Your task to perform on an android device: turn on javascript in the chrome app Image 0: 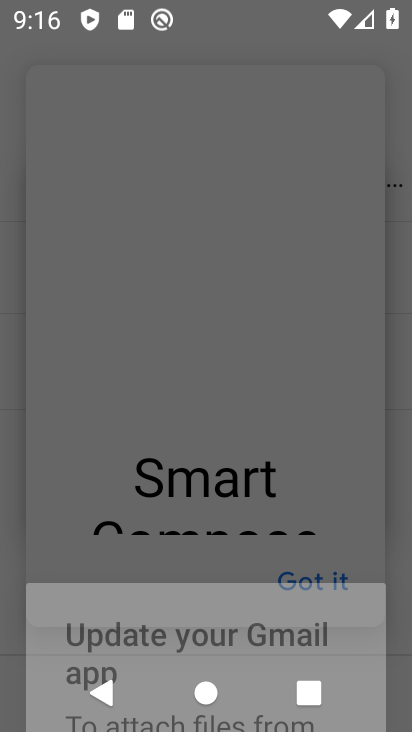
Step 0: press back button
Your task to perform on an android device: turn on javascript in the chrome app Image 1: 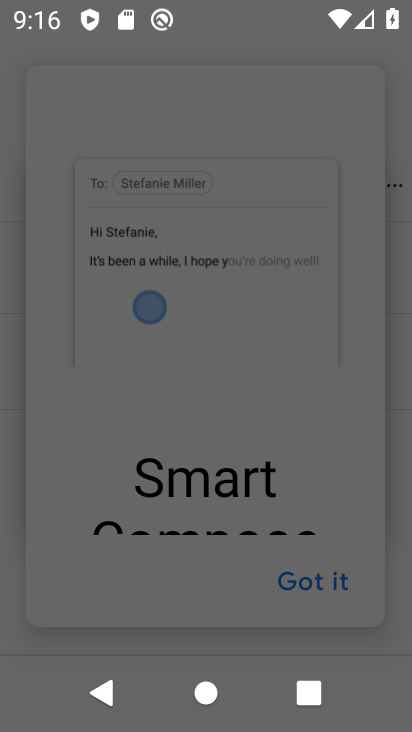
Step 1: press home button
Your task to perform on an android device: turn on javascript in the chrome app Image 2: 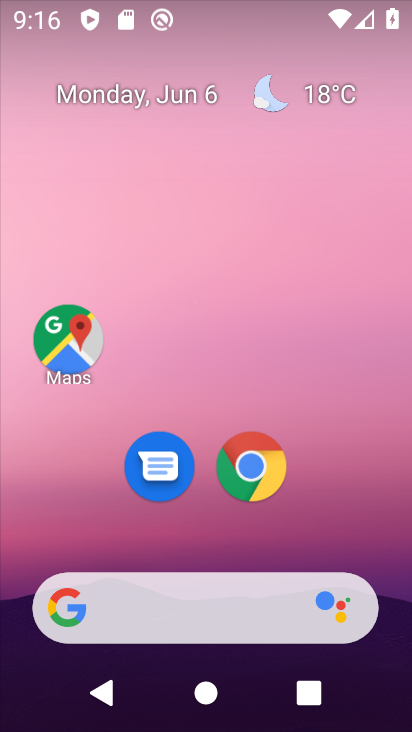
Step 2: click (256, 480)
Your task to perform on an android device: turn on javascript in the chrome app Image 3: 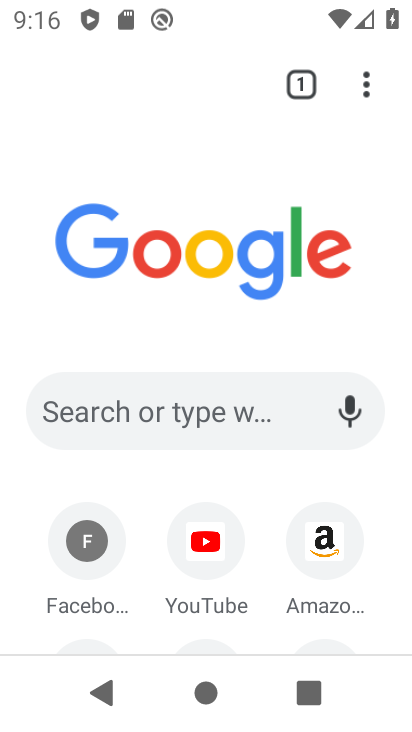
Step 3: drag from (168, 549) to (162, 420)
Your task to perform on an android device: turn on javascript in the chrome app Image 4: 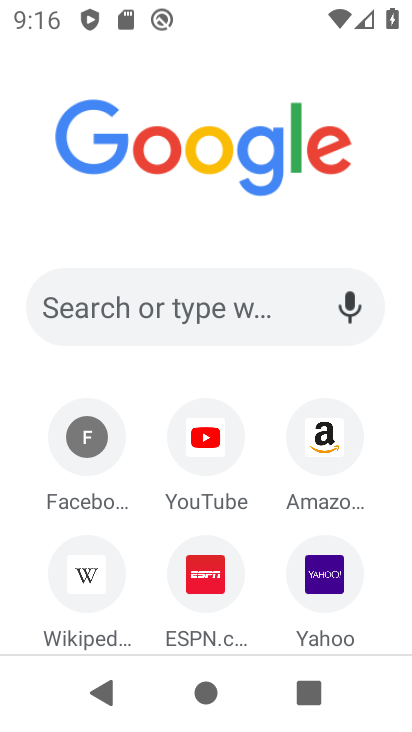
Step 4: drag from (139, 602) to (170, 393)
Your task to perform on an android device: turn on javascript in the chrome app Image 5: 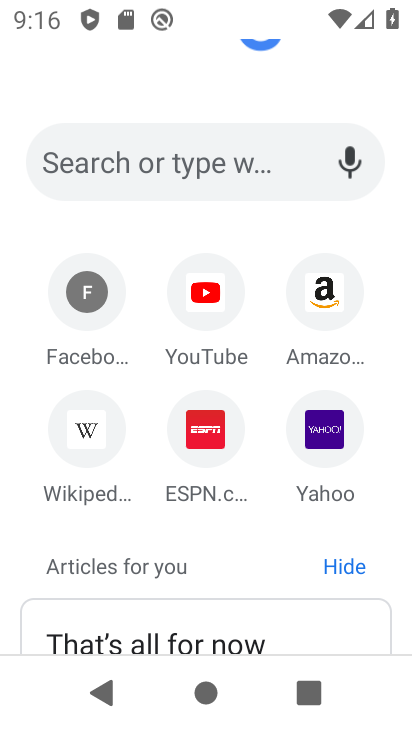
Step 5: drag from (330, 86) to (269, 485)
Your task to perform on an android device: turn on javascript in the chrome app Image 6: 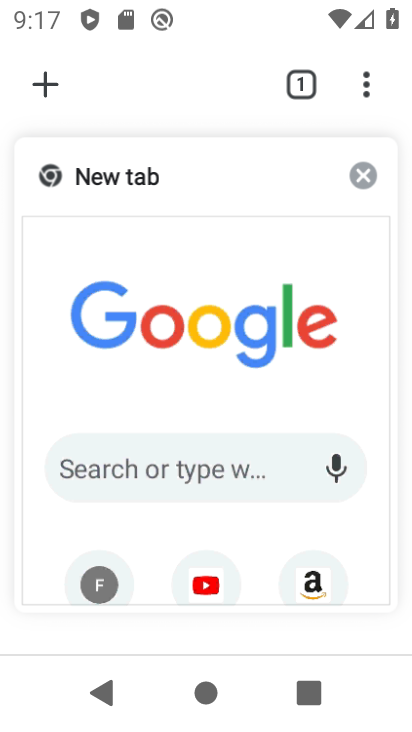
Step 6: click (207, 179)
Your task to perform on an android device: turn on javascript in the chrome app Image 7: 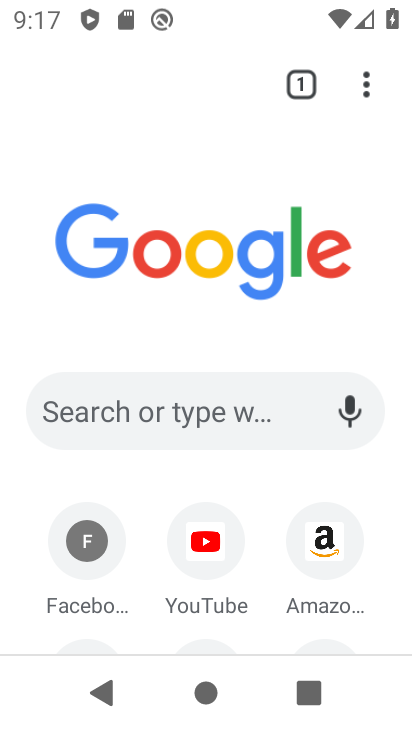
Step 7: click (368, 95)
Your task to perform on an android device: turn on javascript in the chrome app Image 8: 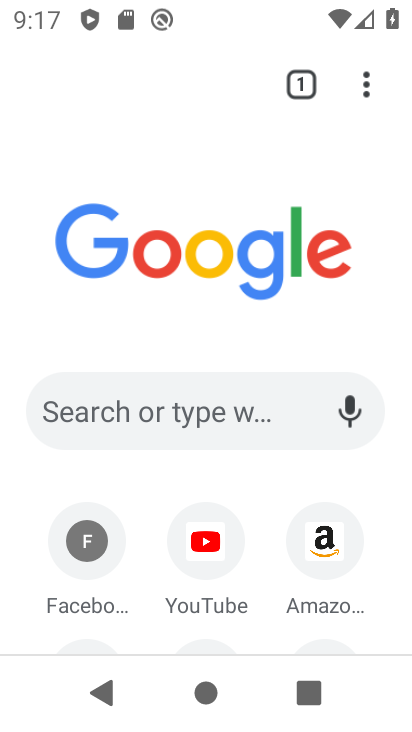
Step 8: click (368, 83)
Your task to perform on an android device: turn on javascript in the chrome app Image 9: 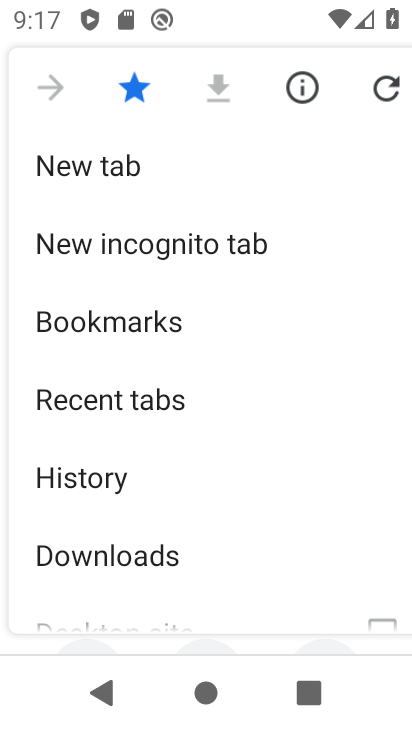
Step 9: drag from (177, 480) to (187, 283)
Your task to perform on an android device: turn on javascript in the chrome app Image 10: 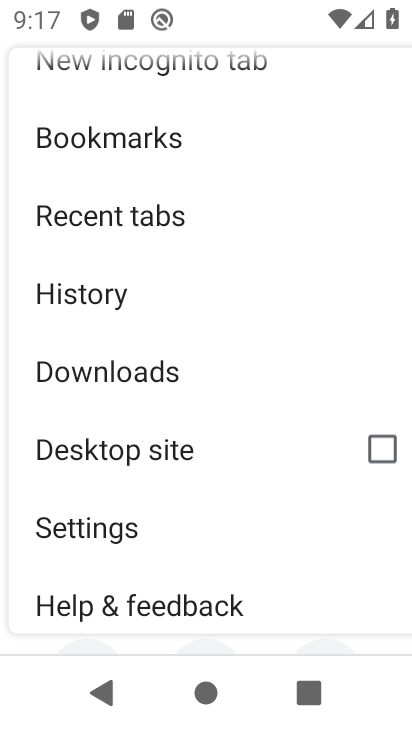
Step 10: click (108, 536)
Your task to perform on an android device: turn on javascript in the chrome app Image 11: 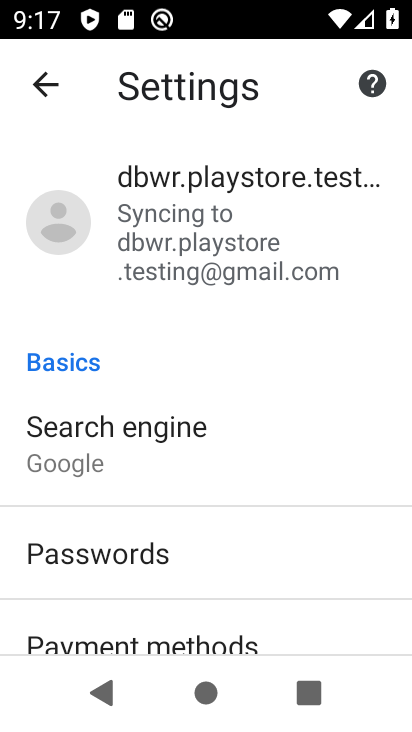
Step 11: drag from (123, 586) to (169, 347)
Your task to perform on an android device: turn on javascript in the chrome app Image 12: 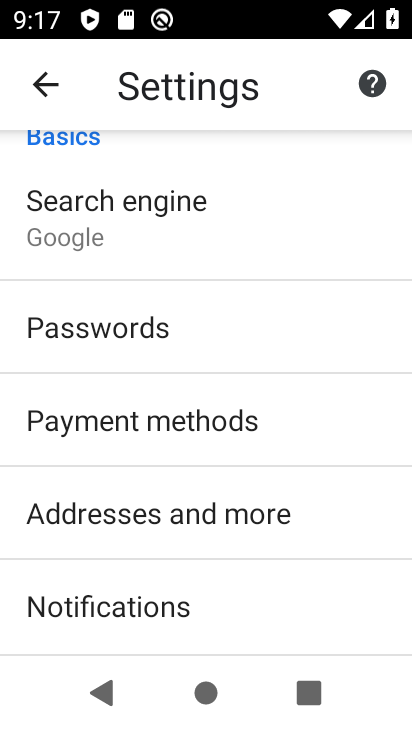
Step 12: drag from (159, 553) to (222, 278)
Your task to perform on an android device: turn on javascript in the chrome app Image 13: 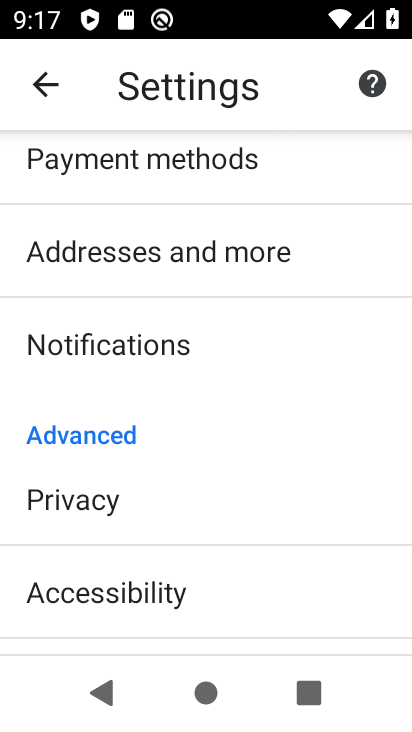
Step 13: drag from (137, 559) to (157, 365)
Your task to perform on an android device: turn on javascript in the chrome app Image 14: 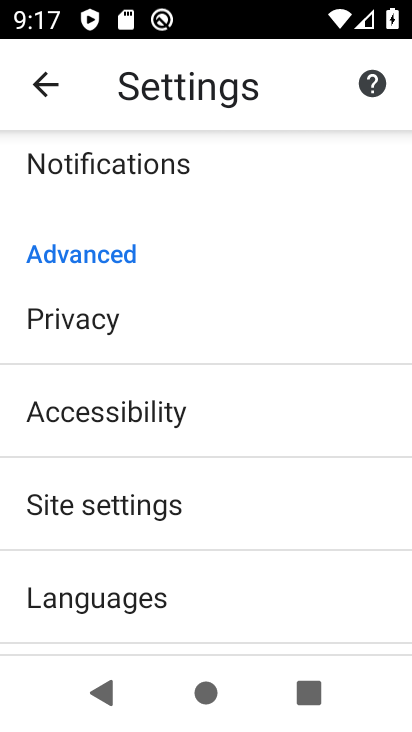
Step 14: click (111, 510)
Your task to perform on an android device: turn on javascript in the chrome app Image 15: 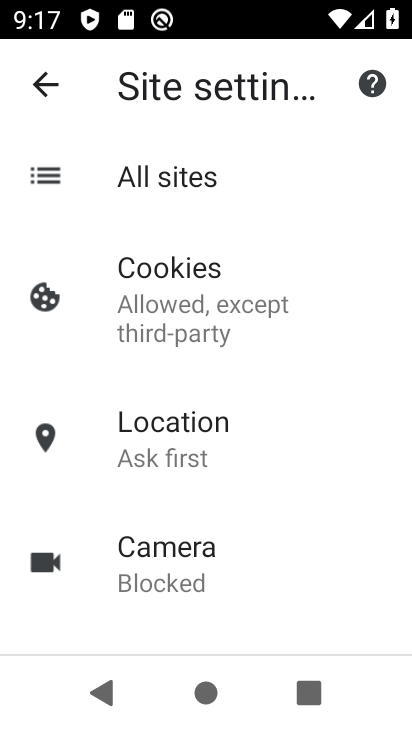
Step 15: drag from (169, 539) to (169, 271)
Your task to perform on an android device: turn on javascript in the chrome app Image 16: 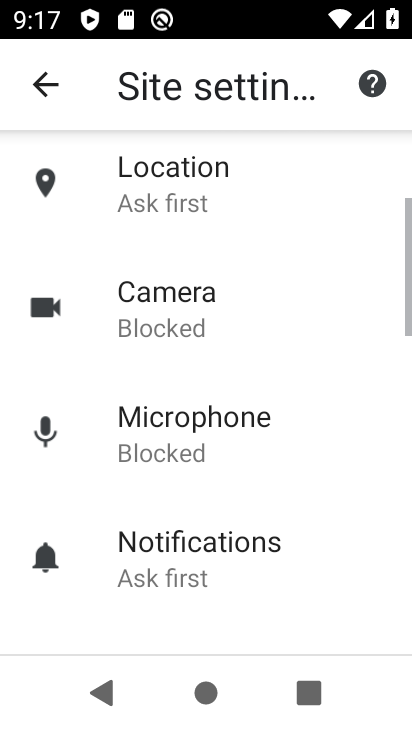
Step 16: drag from (169, 599) to (200, 414)
Your task to perform on an android device: turn on javascript in the chrome app Image 17: 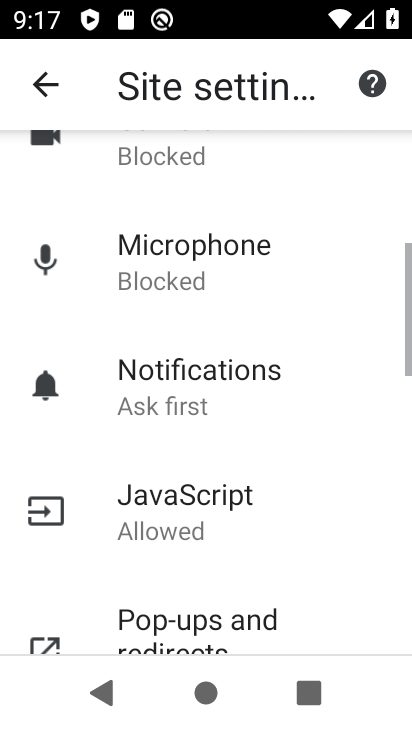
Step 17: click (193, 520)
Your task to perform on an android device: turn on javascript in the chrome app Image 18: 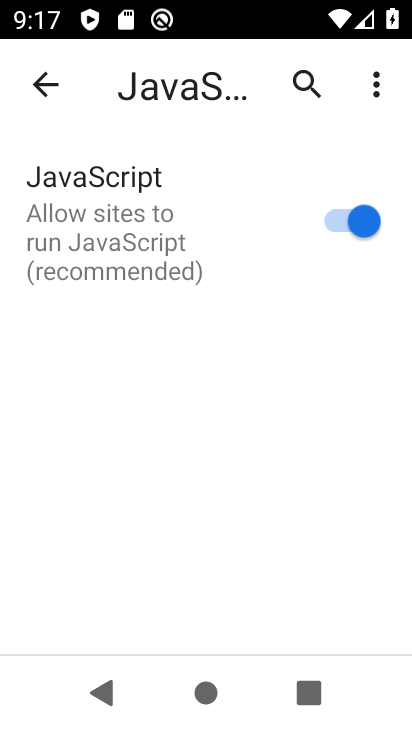
Step 18: task complete